Your task to perform on an android device: Search for "razer deathadder" on ebay.com, select the first entry, add it to the cart, then select checkout. Image 0: 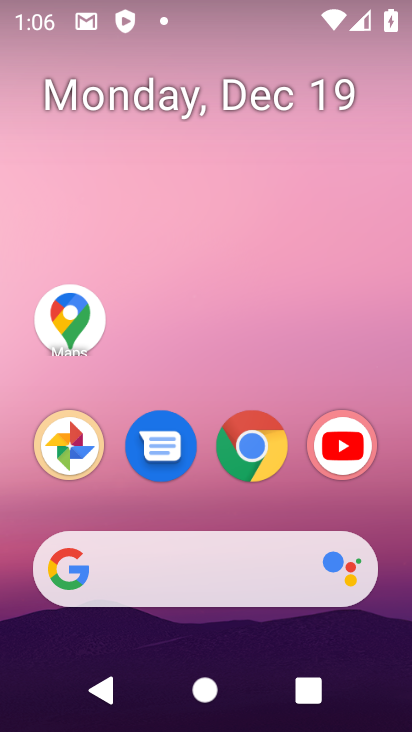
Step 0: click (250, 466)
Your task to perform on an android device: Search for "razer deathadder" on ebay.com, select the first entry, add it to the cart, then select checkout. Image 1: 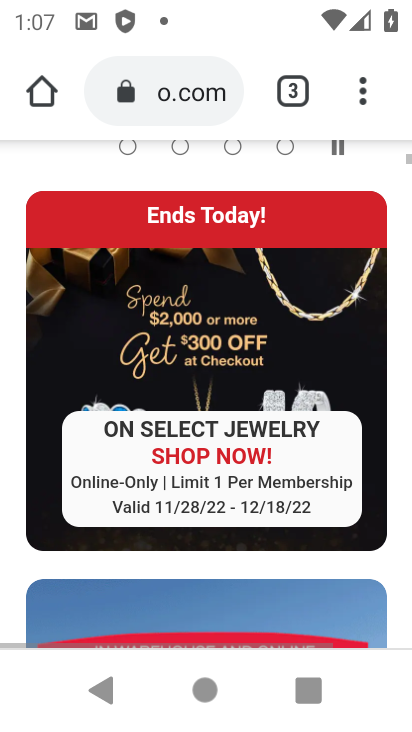
Step 1: drag from (205, 284) to (212, 589)
Your task to perform on an android device: Search for "razer deathadder" on ebay.com, select the first entry, add it to the cart, then select checkout. Image 2: 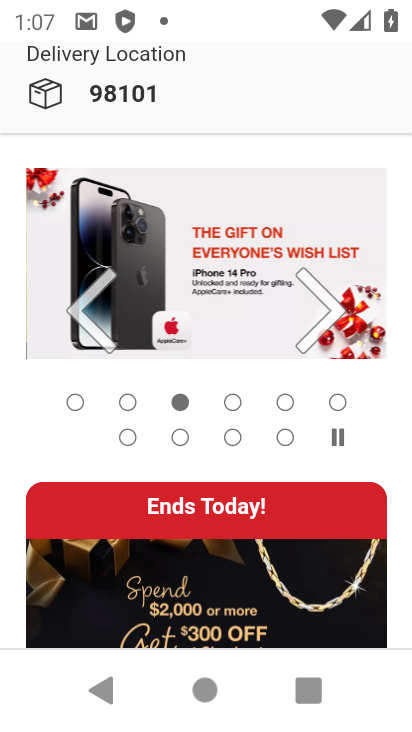
Step 2: click (196, 115)
Your task to perform on an android device: Search for "razer deathadder" on ebay.com, select the first entry, add it to the cart, then select checkout. Image 3: 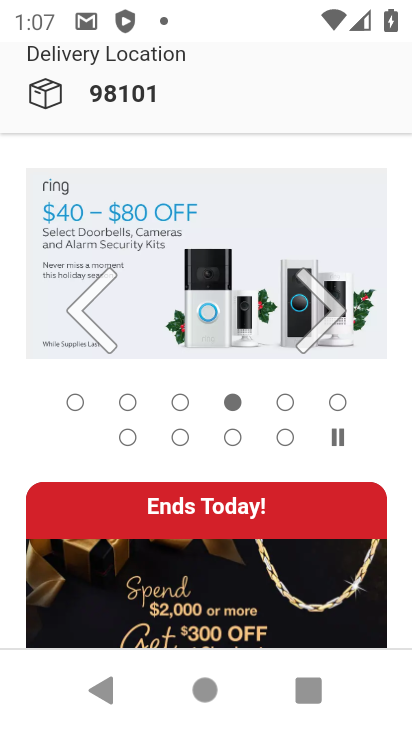
Step 3: drag from (204, 208) to (187, 698)
Your task to perform on an android device: Search for "razer deathadder" on ebay.com, select the first entry, add it to the cart, then select checkout. Image 4: 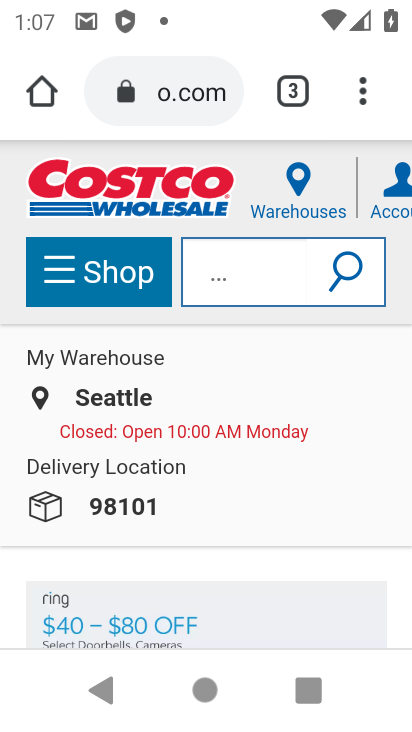
Step 4: click (187, 82)
Your task to perform on an android device: Search for "razer deathadder" on ebay.com, select the first entry, add it to the cart, then select checkout. Image 5: 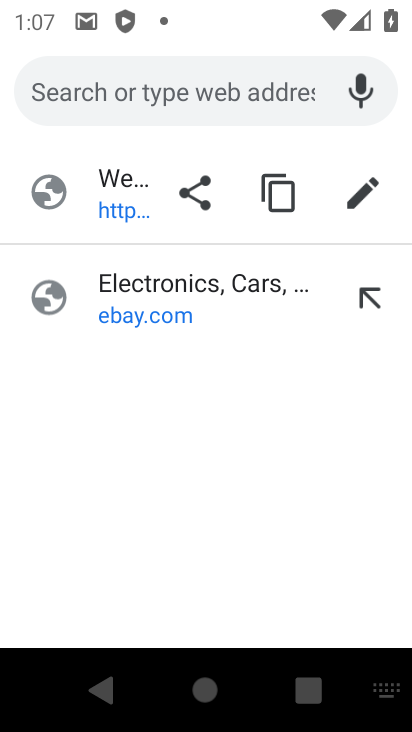
Step 5: type "ebay"
Your task to perform on an android device: Search for "razer deathadder" on ebay.com, select the first entry, add it to the cart, then select checkout. Image 6: 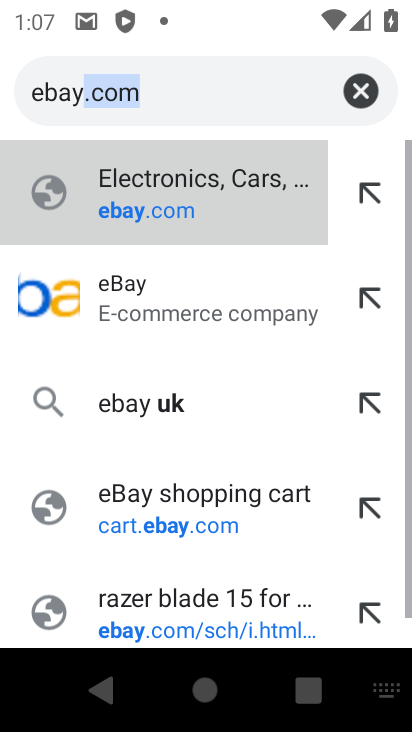
Step 6: click (193, 200)
Your task to perform on an android device: Search for "razer deathadder" on ebay.com, select the first entry, add it to the cart, then select checkout. Image 7: 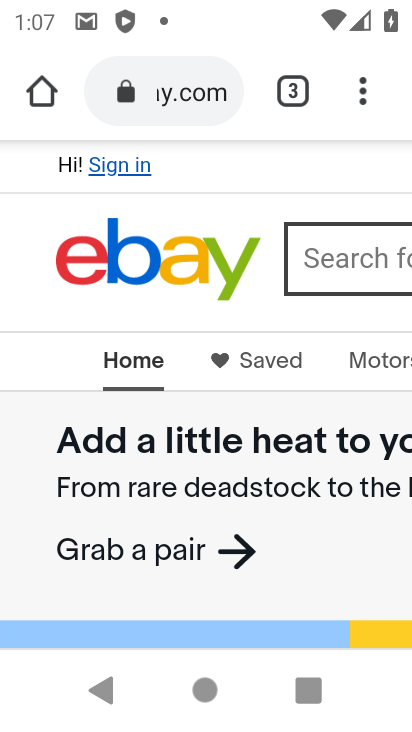
Step 7: click (327, 268)
Your task to perform on an android device: Search for "razer deathadder" on ebay.com, select the first entry, add it to the cart, then select checkout. Image 8: 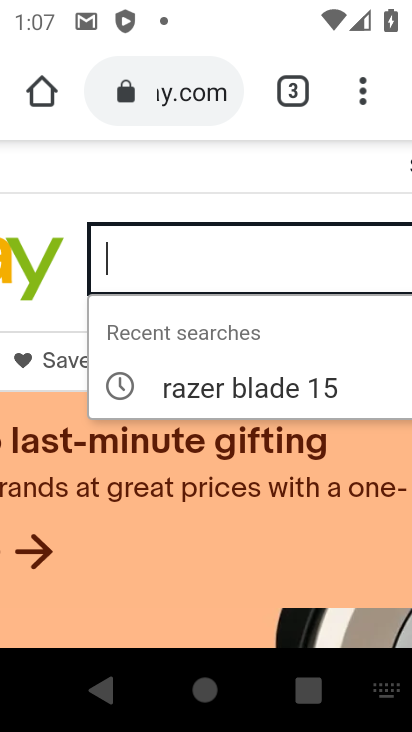
Step 8: type "razer daethadder"
Your task to perform on an android device: Search for "razer deathadder" on ebay.com, select the first entry, add it to the cart, then select checkout. Image 9: 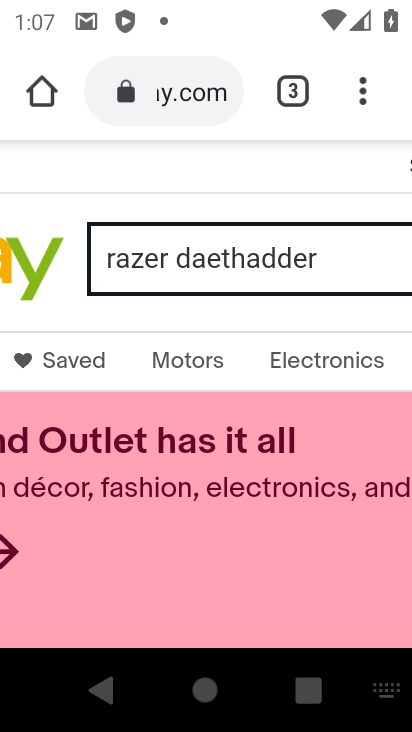
Step 9: type "'"
Your task to perform on an android device: Search for "razer deathadder" on ebay.com, select the first entry, add it to the cart, then select checkout. Image 10: 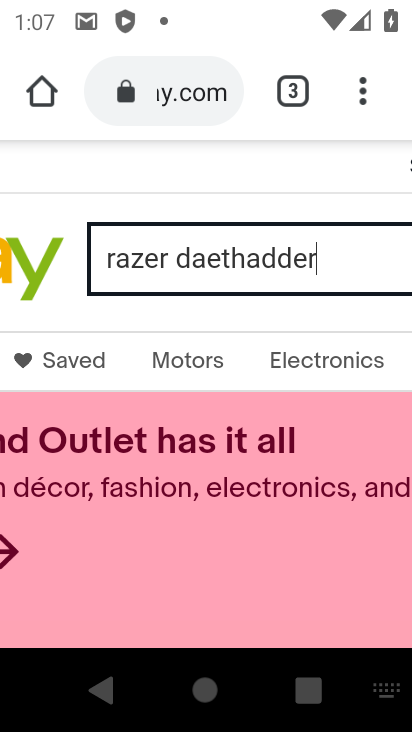
Step 10: drag from (212, 344) to (58, 320)
Your task to perform on an android device: Search for "razer deathadder" on ebay.com, select the first entry, add it to the cart, then select checkout. Image 11: 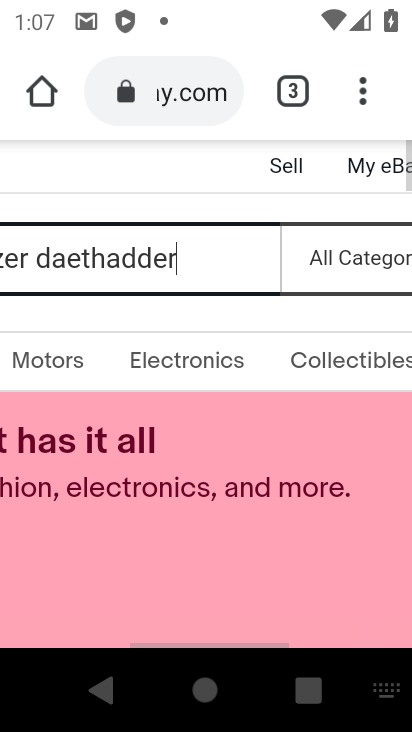
Step 11: drag from (344, 307) to (33, 321)
Your task to perform on an android device: Search for "razer deathadder" on ebay.com, select the first entry, add it to the cart, then select checkout. Image 12: 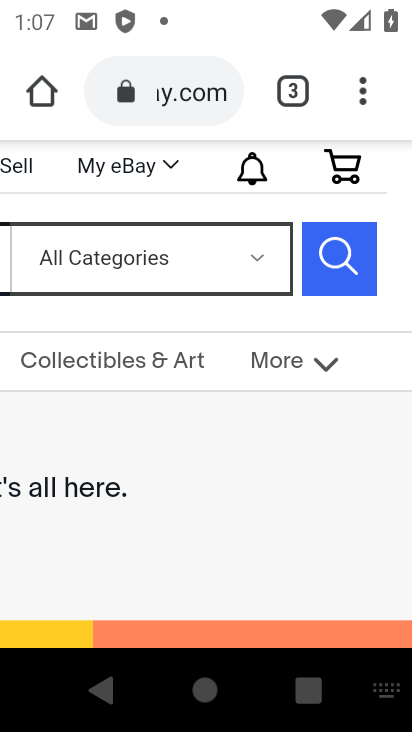
Step 12: click (290, 273)
Your task to perform on an android device: Search for "razer deathadder" on ebay.com, select the first entry, add it to the cart, then select checkout. Image 13: 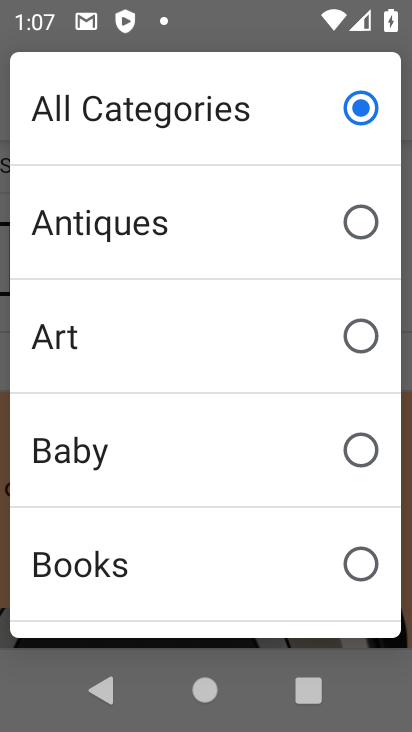
Step 13: click (240, 107)
Your task to perform on an android device: Search for "razer deathadder" on ebay.com, select the first entry, add it to the cart, then select checkout. Image 14: 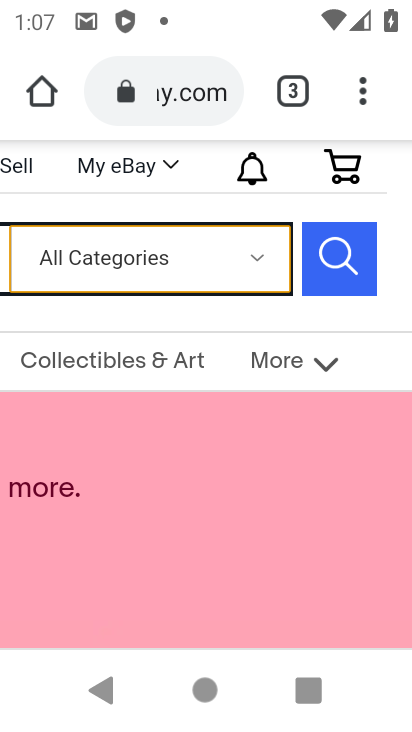
Step 14: click (334, 275)
Your task to perform on an android device: Search for "razer deathadder" on ebay.com, select the first entry, add it to the cart, then select checkout. Image 15: 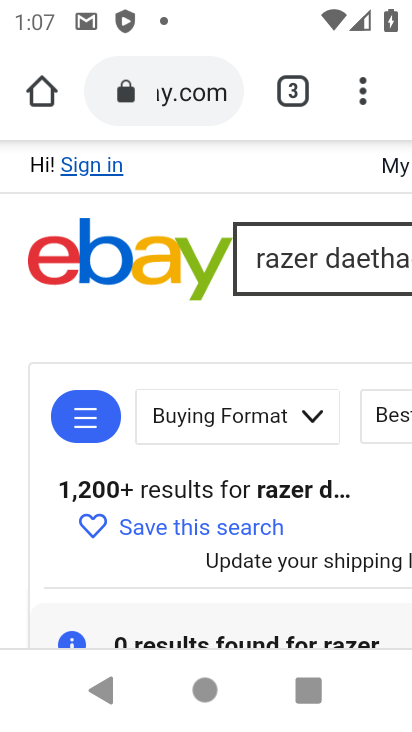
Step 15: drag from (201, 537) to (243, 168)
Your task to perform on an android device: Search for "razer deathadder" on ebay.com, select the first entry, add it to the cart, then select checkout. Image 16: 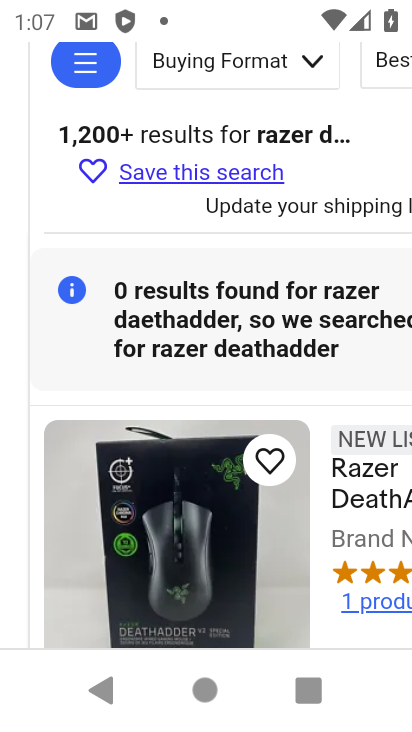
Step 16: click (373, 476)
Your task to perform on an android device: Search for "razer deathadder" on ebay.com, select the first entry, add it to the cart, then select checkout. Image 17: 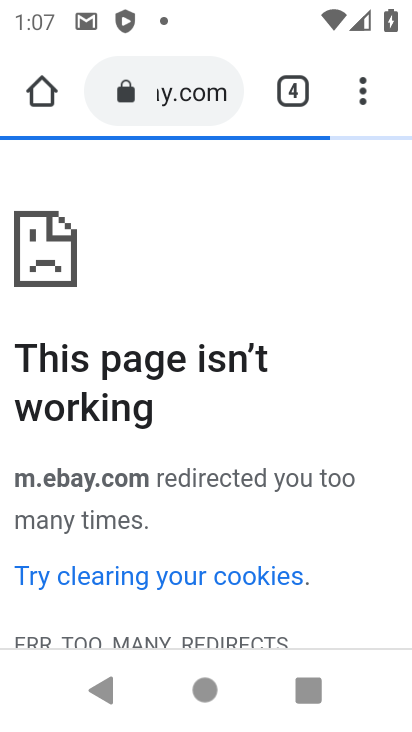
Step 17: task complete